Your task to perform on an android device: Search for Italian restaurants on Maps Image 0: 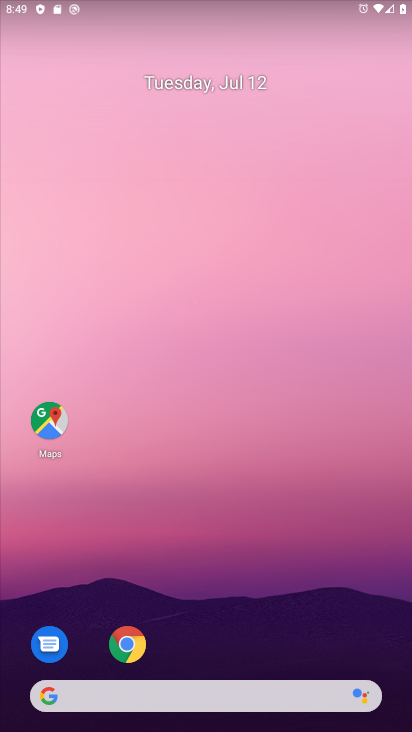
Step 0: click (59, 423)
Your task to perform on an android device: Search for Italian restaurants on Maps Image 1: 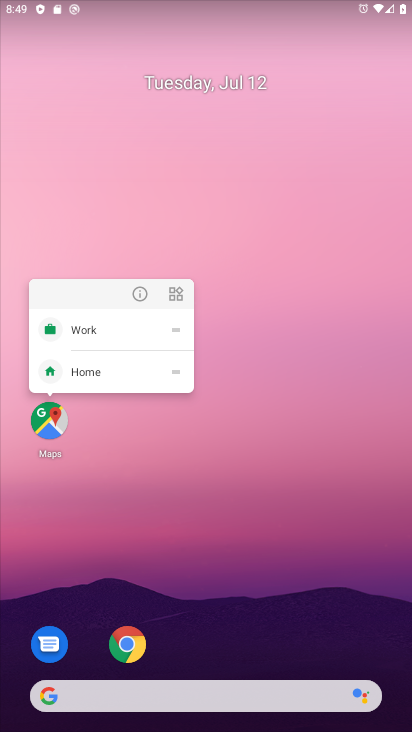
Step 1: click (41, 419)
Your task to perform on an android device: Search for Italian restaurants on Maps Image 2: 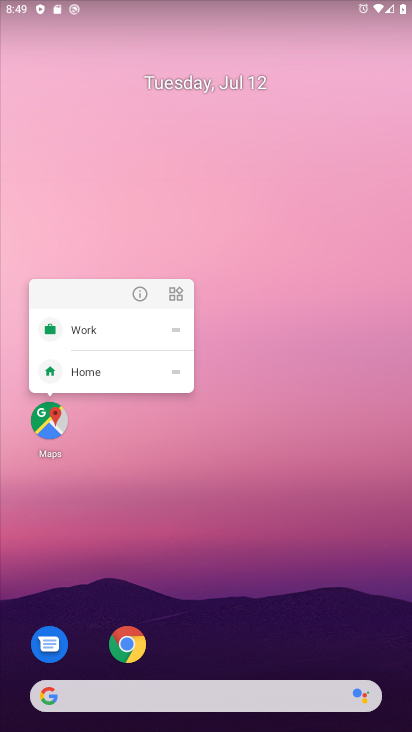
Step 2: click (44, 416)
Your task to perform on an android device: Search for Italian restaurants on Maps Image 3: 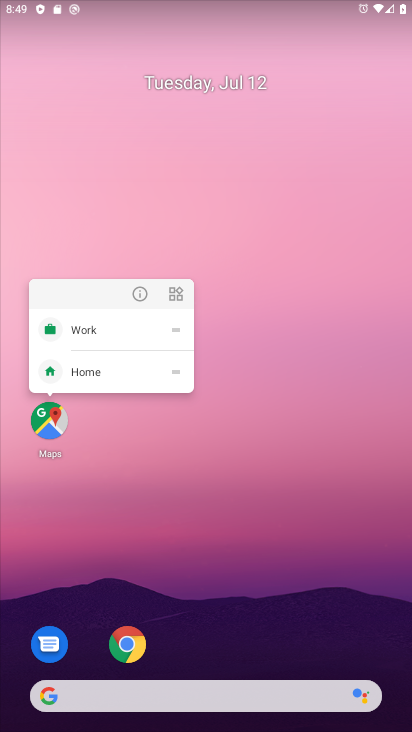
Step 3: click (48, 433)
Your task to perform on an android device: Search for Italian restaurants on Maps Image 4: 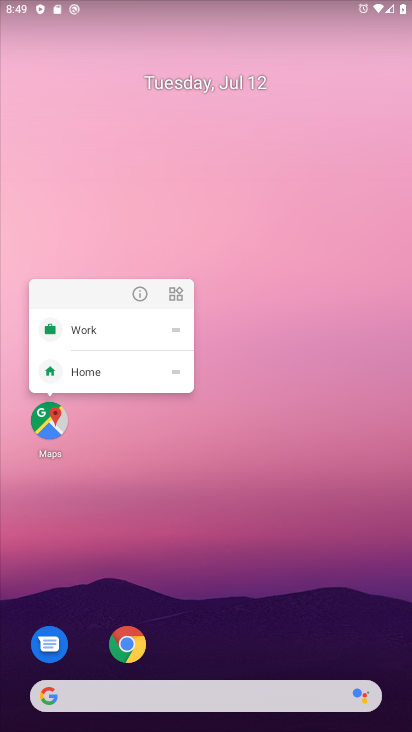
Step 4: click (53, 410)
Your task to perform on an android device: Search for Italian restaurants on Maps Image 5: 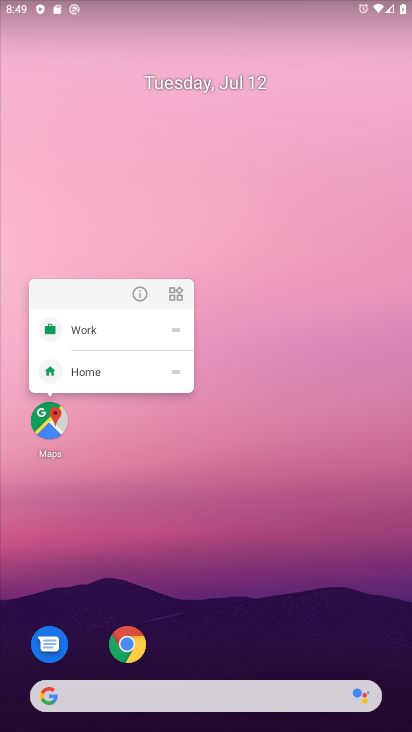
Step 5: click (28, 420)
Your task to perform on an android device: Search for Italian restaurants on Maps Image 6: 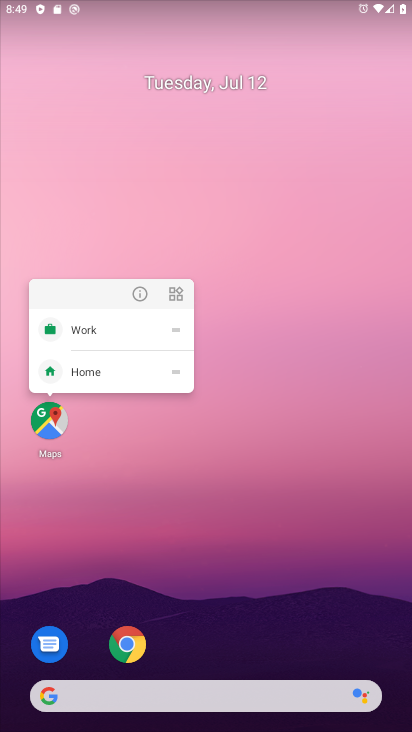
Step 6: task complete